Your task to perform on an android device: open wifi settings Image 0: 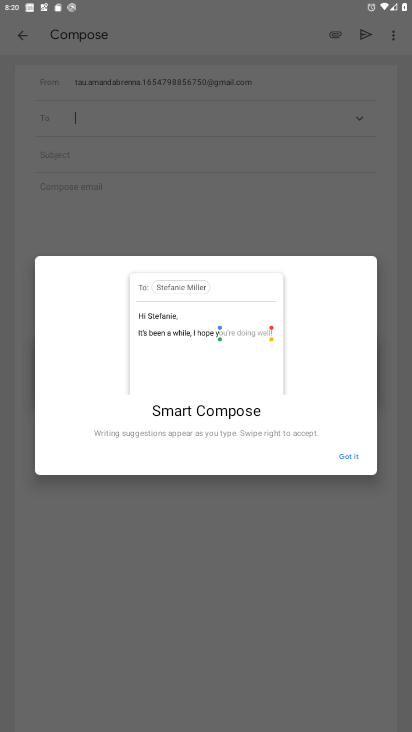
Step 0: press home button
Your task to perform on an android device: open wifi settings Image 1: 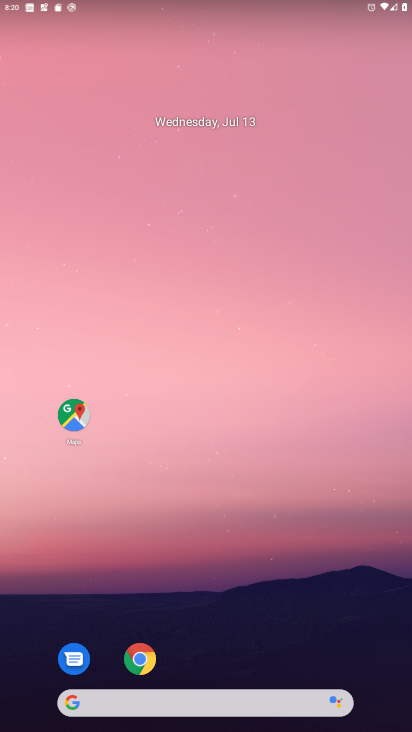
Step 1: drag from (249, 560) to (246, 164)
Your task to perform on an android device: open wifi settings Image 2: 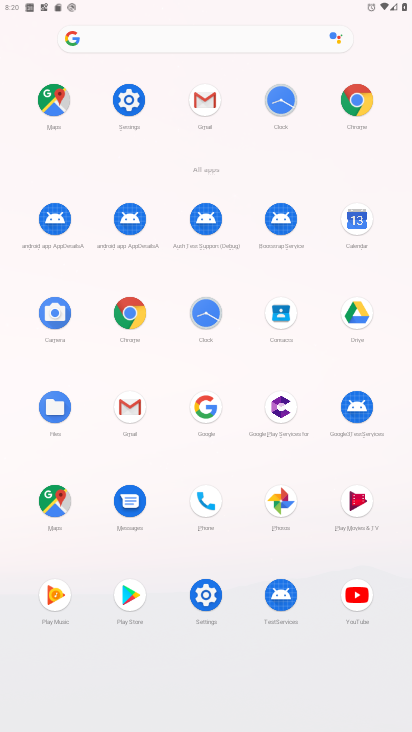
Step 2: click (125, 95)
Your task to perform on an android device: open wifi settings Image 3: 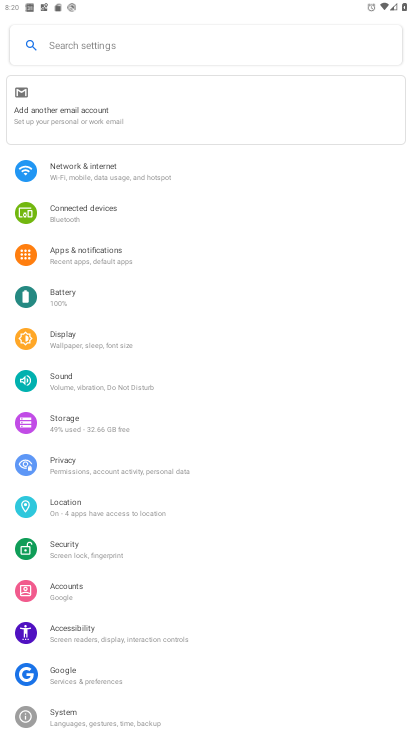
Step 3: click (87, 168)
Your task to perform on an android device: open wifi settings Image 4: 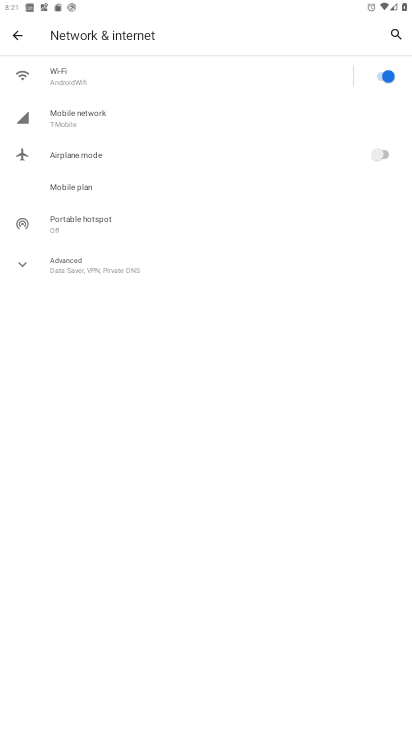
Step 4: click (78, 75)
Your task to perform on an android device: open wifi settings Image 5: 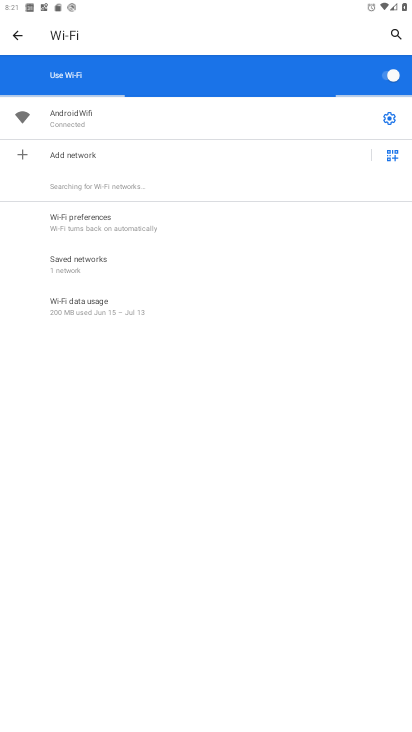
Step 5: task complete